Your task to perform on an android device: When is my next meeting? Image 0: 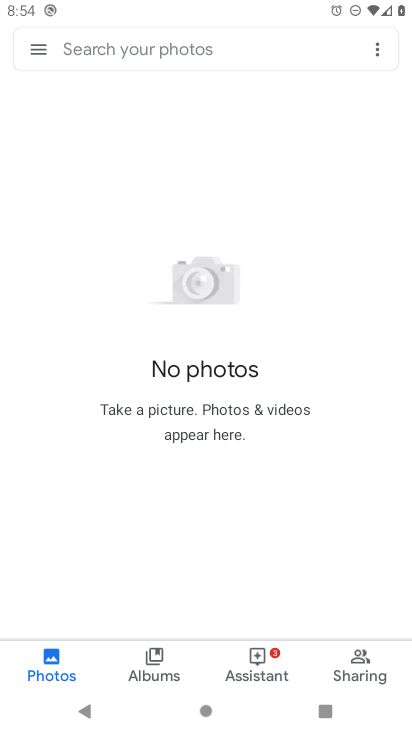
Step 0: press home button
Your task to perform on an android device: When is my next meeting? Image 1: 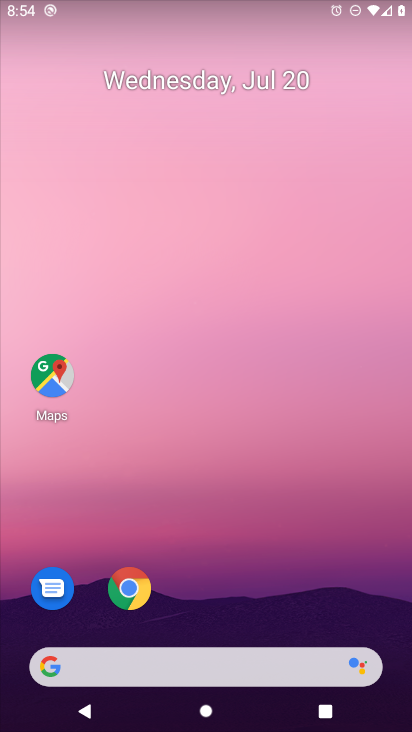
Step 1: drag from (65, 634) to (335, 18)
Your task to perform on an android device: When is my next meeting? Image 2: 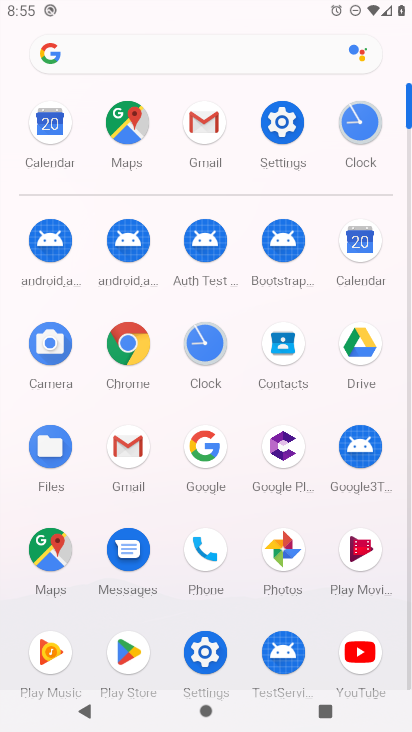
Step 2: drag from (354, 122) to (356, 164)
Your task to perform on an android device: When is my next meeting? Image 3: 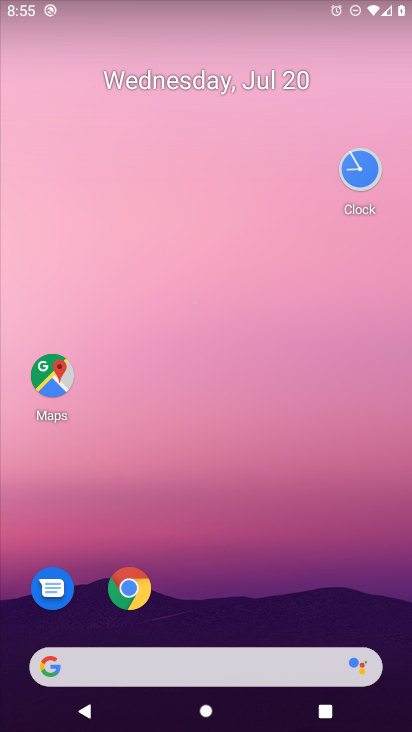
Step 3: drag from (44, 706) to (306, 112)
Your task to perform on an android device: When is my next meeting? Image 4: 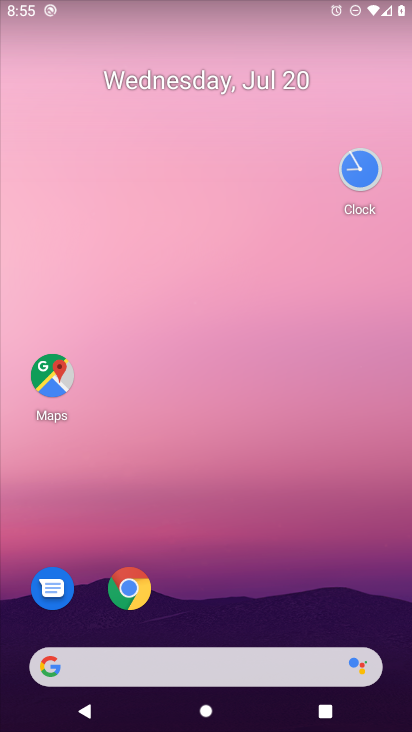
Step 4: drag from (25, 725) to (274, 228)
Your task to perform on an android device: When is my next meeting? Image 5: 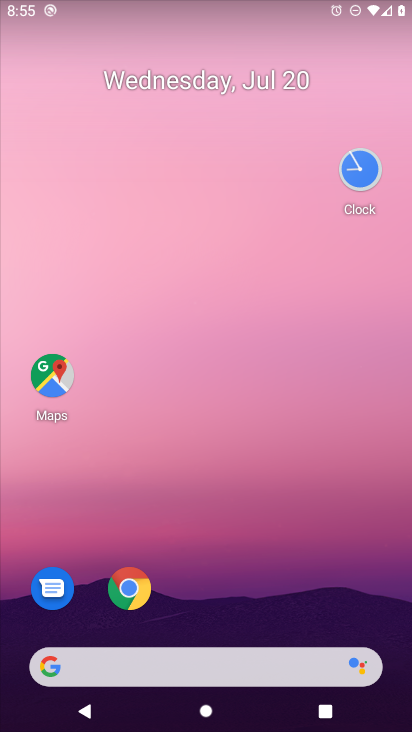
Step 5: drag from (54, 707) to (217, 154)
Your task to perform on an android device: When is my next meeting? Image 6: 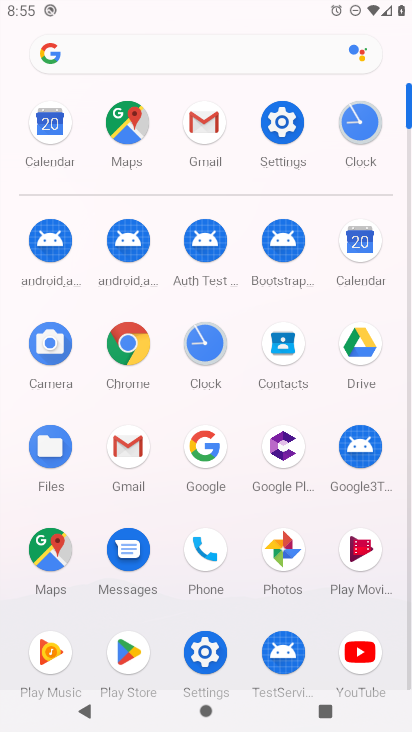
Step 6: click (351, 238)
Your task to perform on an android device: When is my next meeting? Image 7: 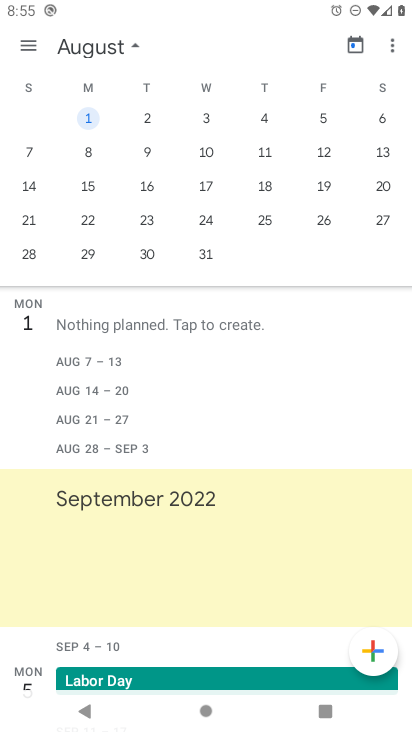
Step 7: drag from (33, 112) to (408, 142)
Your task to perform on an android device: When is my next meeting? Image 8: 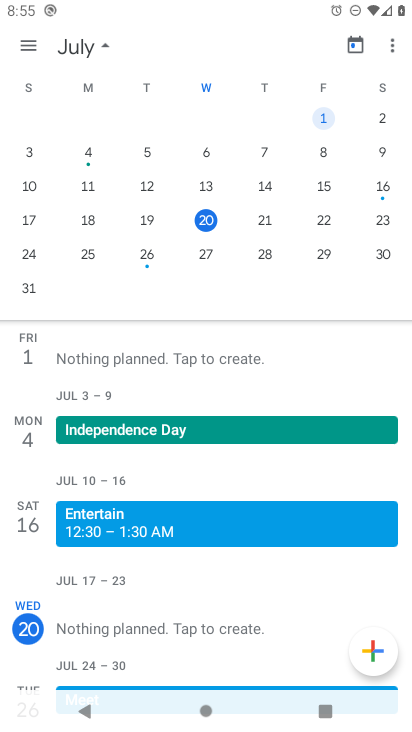
Step 8: drag from (16, 117) to (315, 121)
Your task to perform on an android device: When is my next meeting? Image 9: 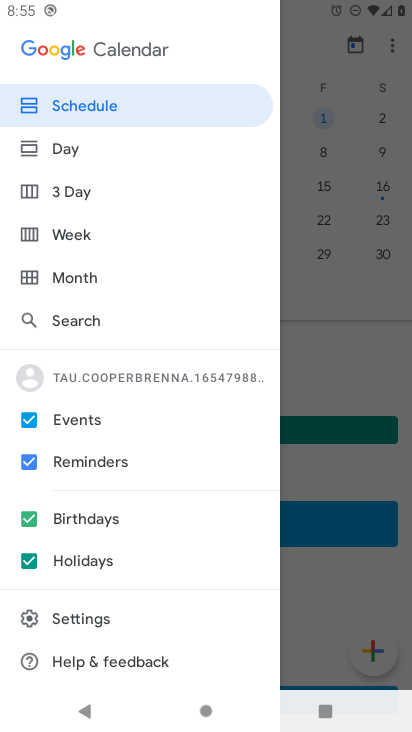
Step 9: click (355, 359)
Your task to perform on an android device: When is my next meeting? Image 10: 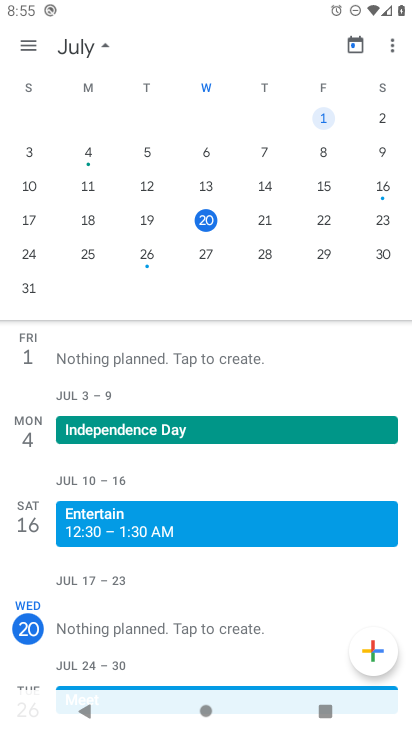
Step 10: task complete